Your task to perform on an android device: allow cookies in the chrome app Image 0: 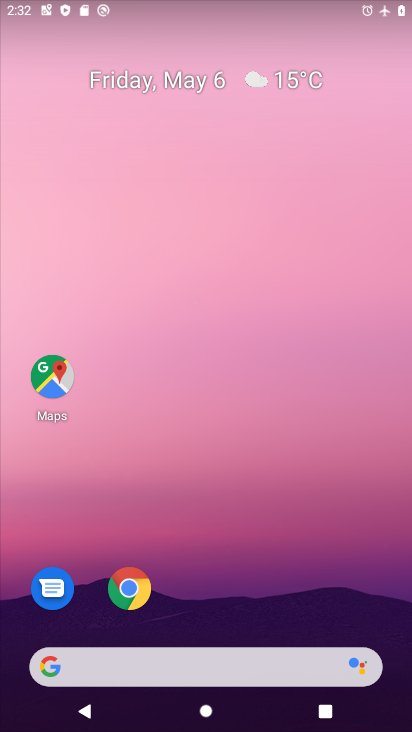
Step 0: drag from (205, 589) to (207, 151)
Your task to perform on an android device: allow cookies in the chrome app Image 1: 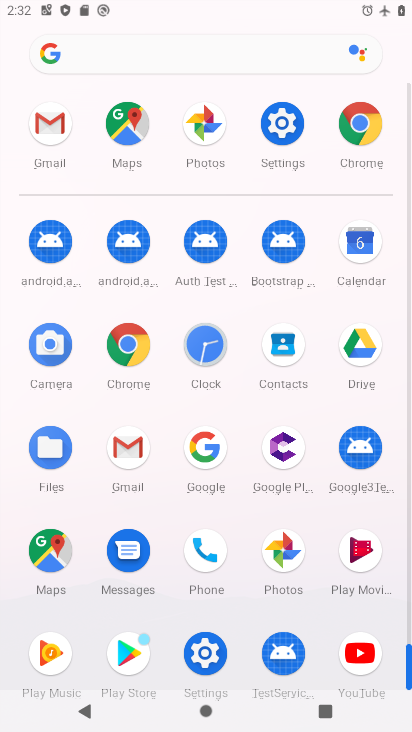
Step 1: click (121, 352)
Your task to perform on an android device: allow cookies in the chrome app Image 2: 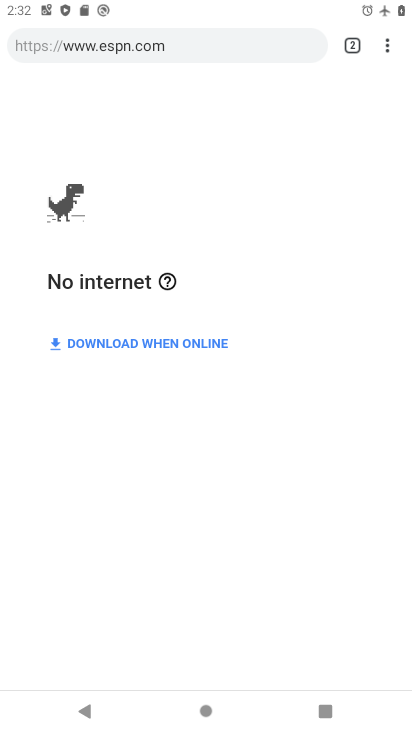
Step 2: click (346, 59)
Your task to perform on an android device: allow cookies in the chrome app Image 3: 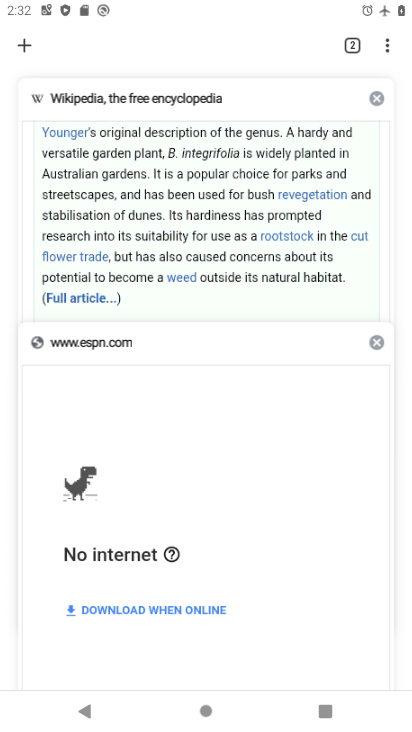
Step 3: click (372, 337)
Your task to perform on an android device: allow cookies in the chrome app Image 4: 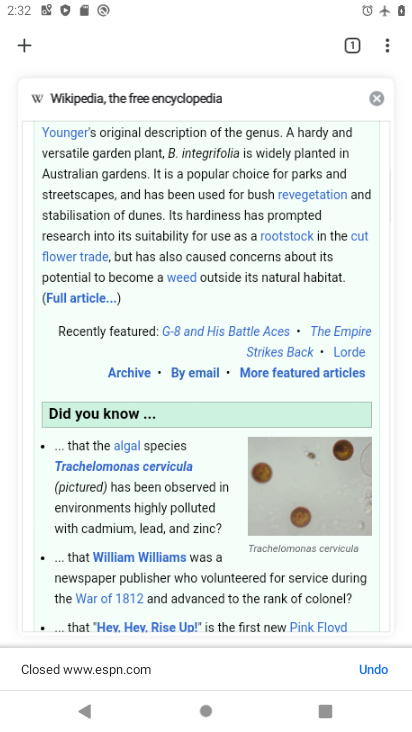
Step 4: click (317, 181)
Your task to perform on an android device: allow cookies in the chrome app Image 5: 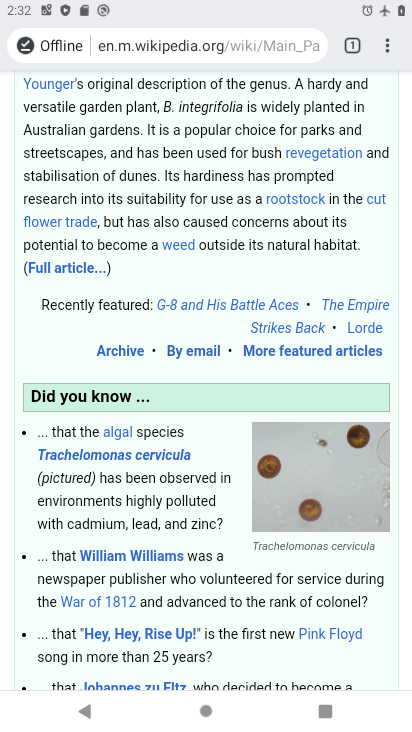
Step 5: click (388, 52)
Your task to perform on an android device: allow cookies in the chrome app Image 6: 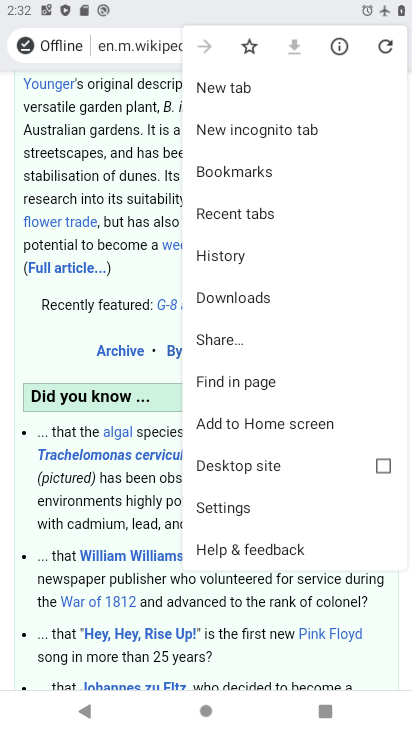
Step 6: click (267, 507)
Your task to perform on an android device: allow cookies in the chrome app Image 7: 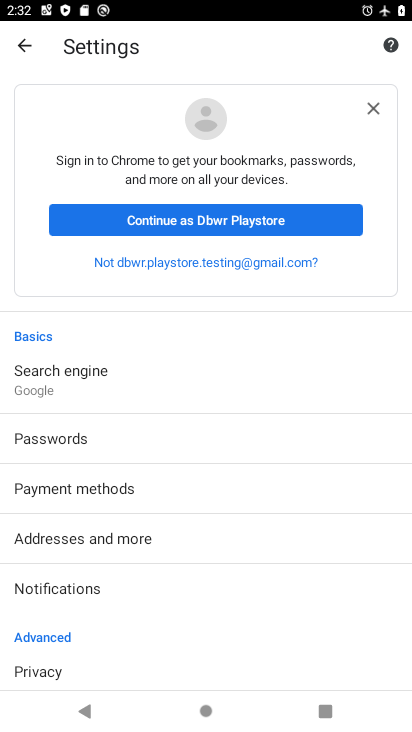
Step 7: drag from (142, 698) to (215, 267)
Your task to perform on an android device: allow cookies in the chrome app Image 8: 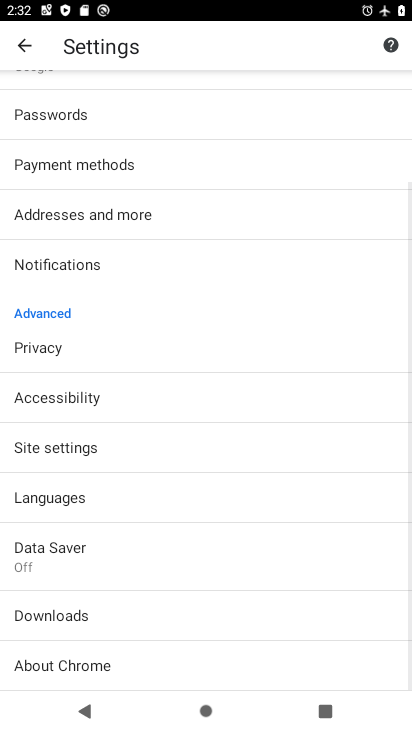
Step 8: drag from (180, 637) to (221, 360)
Your task to perform on an android device: allow cookies in the chrome app Image 9: 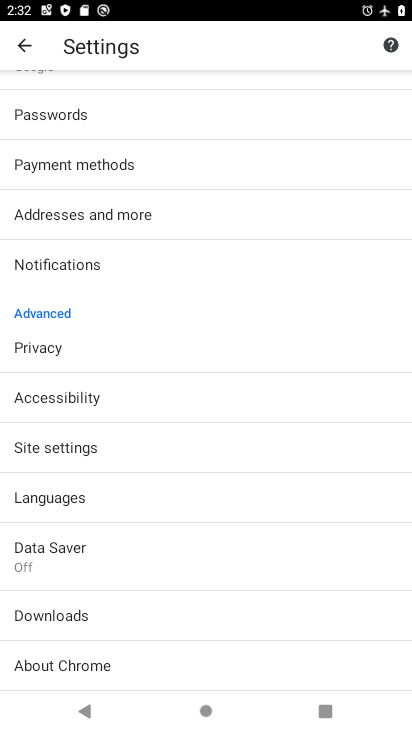
Step 9: drag from (132, 643) to (206, 331)
Your task to perform on an android device: allow cookies in the chrome app Image 10: 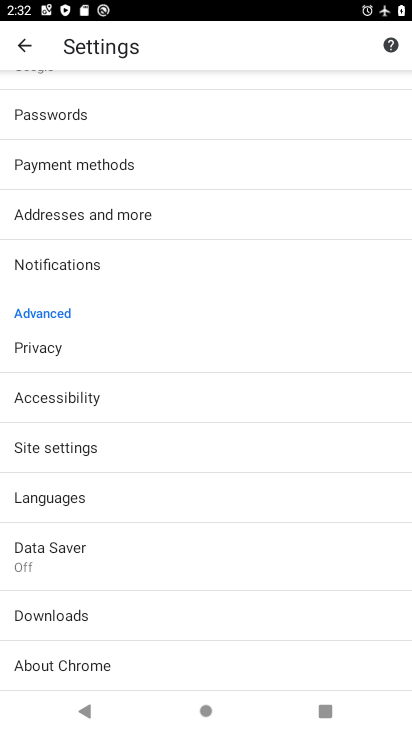
Step 10: click (103, 438)
Your task to perform on an android device: allow cookies in the chrome app Image 11: 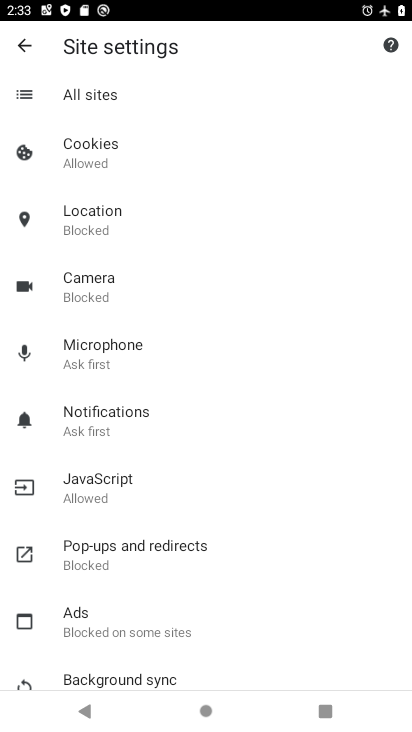
Step 11: click (161, 159)
Your task to perform on an android device: allow cookies in the chrome app Image 12: 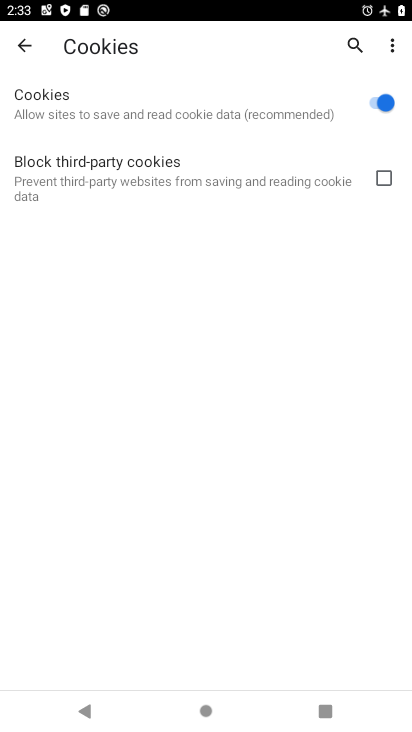
Step 12: task complete